Your task to perform on an android device: turn on notifications settings in the gmail app Image 0: 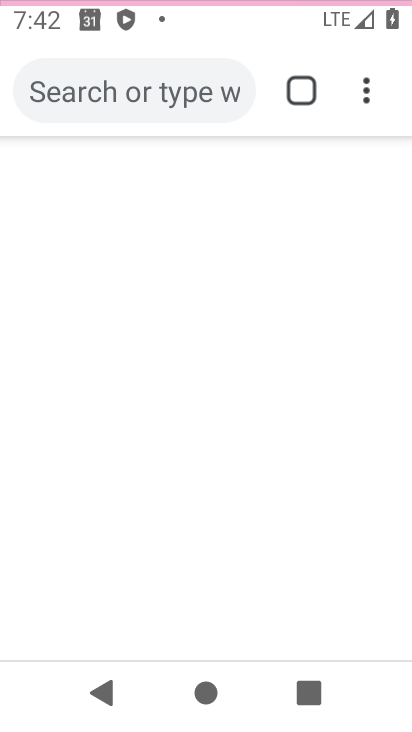
Step 0: click (234, 150)
Your task to perform on an android device: turn on notifications settings in the gmail app Image 1: 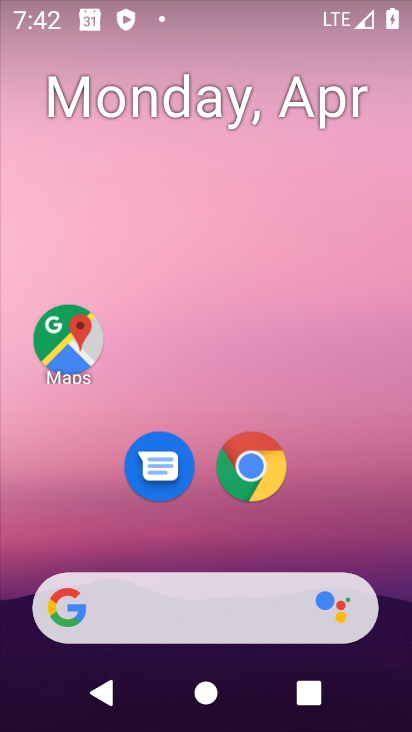
Step 1: drag from (205, 520) to (227, 215)
Your task to perform on an android device: turn on notifications settings in the gmail app Image 2: 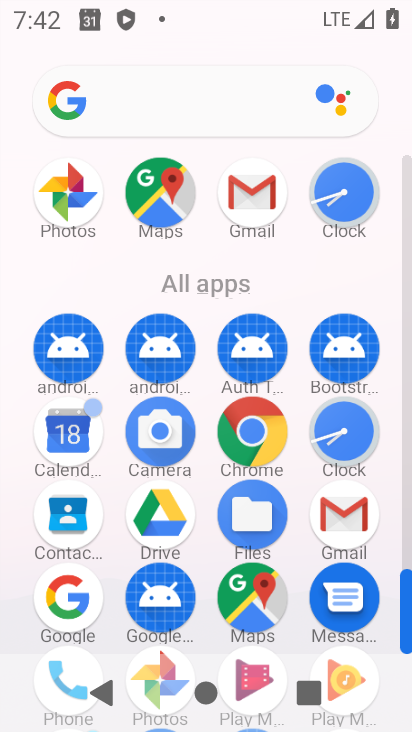
Step 2: drag from (212, 651) to (271, 280)
Your task to perform on an android device: turn on notifications settings in the gmail app Image 3: 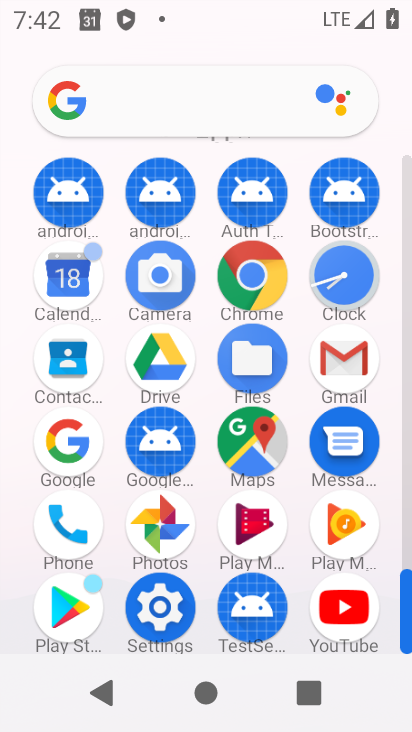
Step 3: click (349, 357)
Your task to perform on an android device: turn on notifications settings in the gmail app Image 4: 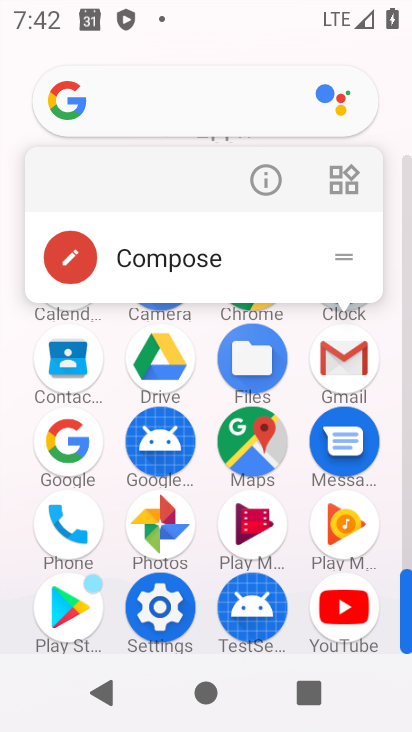
Step 4: click (261, 174)
Your task to perform on an android device: turn on notifications settings in the gmail app Image 5: 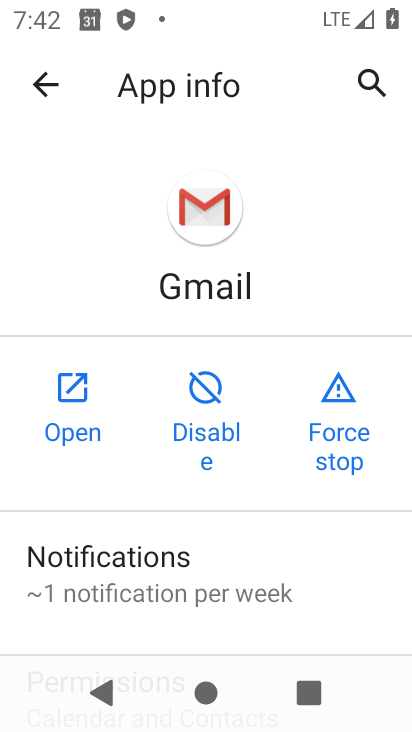
Step 5: click (61, 392)
Your task to perform on an android device: turn on notifications settings in the gmail app Image 6: 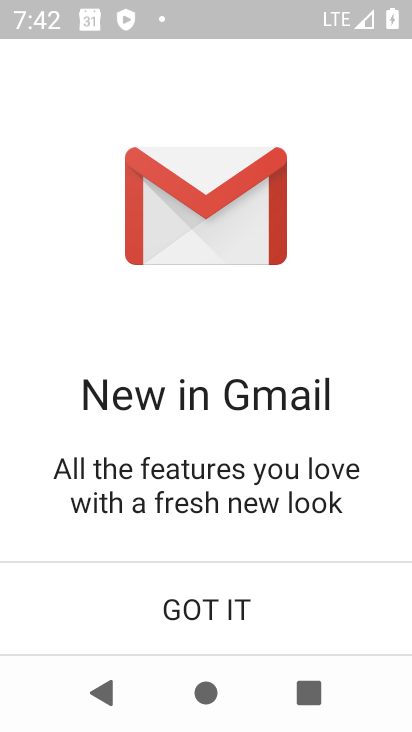
Step 6: click (244, 606)
Your task to perform on an android device: turn on notifications settings in the gmail app Image 7: 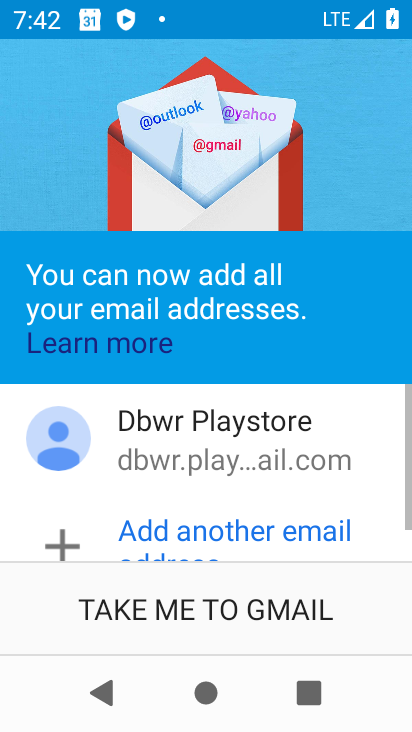
Step 7: click (187, 601)
Your task to perform on an android device: turn on notifications settings in the gmail app Image 8: 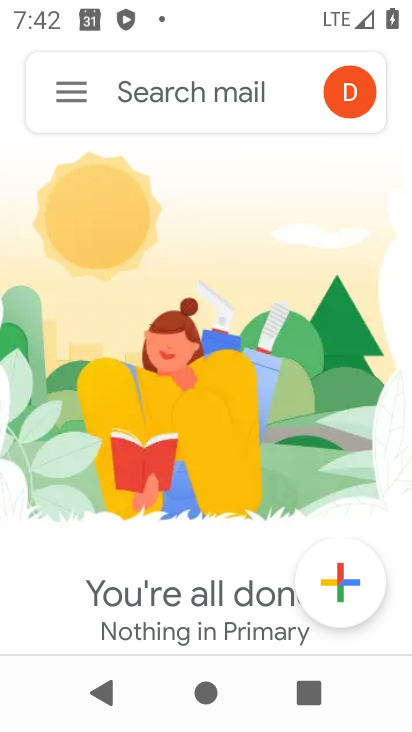
Step 8: click (75, 76)
Your task to perform on an android device: turn on notifications settings in the gmail app Image 9: 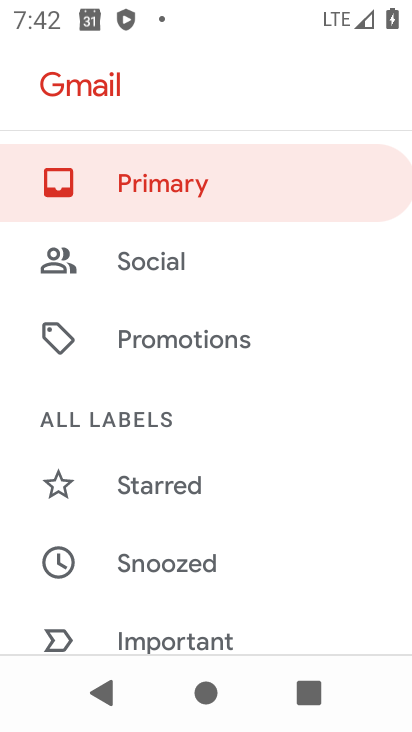
Step 9: drag from (184, 477) to (260, 60)
Your task to perform on an android device: turn on notifications settings in the gmail app Image 10: 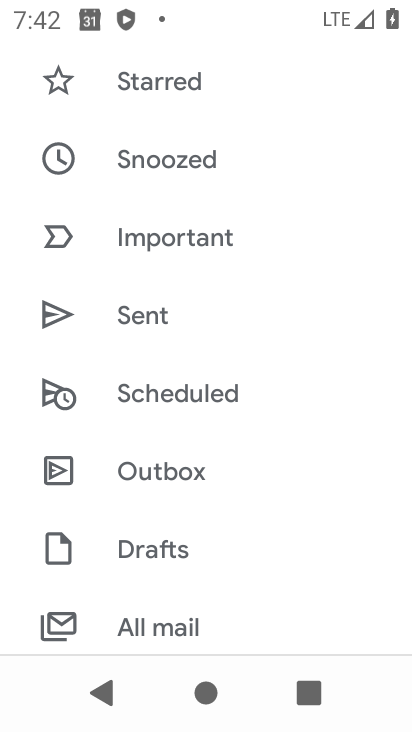
Step 10: drag from (238, 519) to (292, 100)
Your task to perform on an android device: turn on notifications settings in the gmail app Image 11: 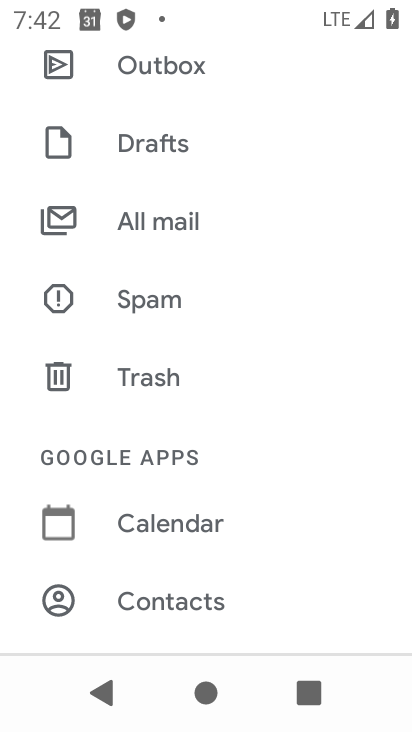
Step 11: drag from (258, 195) to (258, 109)
Your task to perform on an android device: turn on notifications settings in the gmail app Image 12: 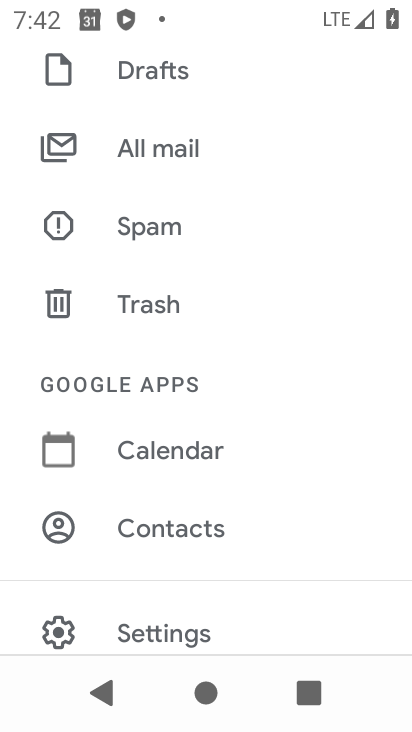
Step 12: click (197, 629)
Your task to perform on an android device: turn on notifications settings in the gmail app Image 13: 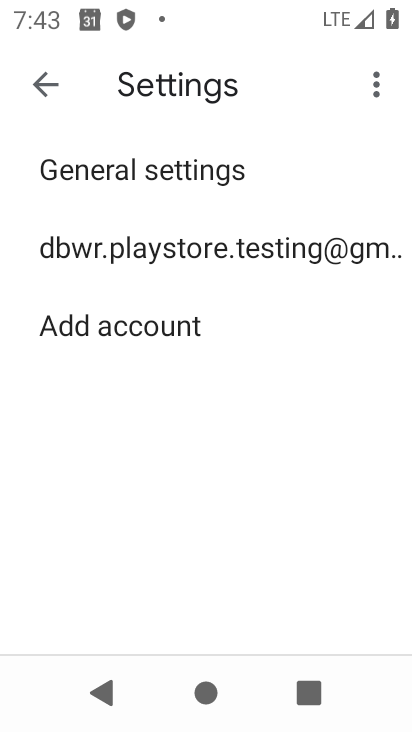
Step 13: click (188, 237)
Your task to perform on an android device: turn on notifications settings in the gmail app Image 14: 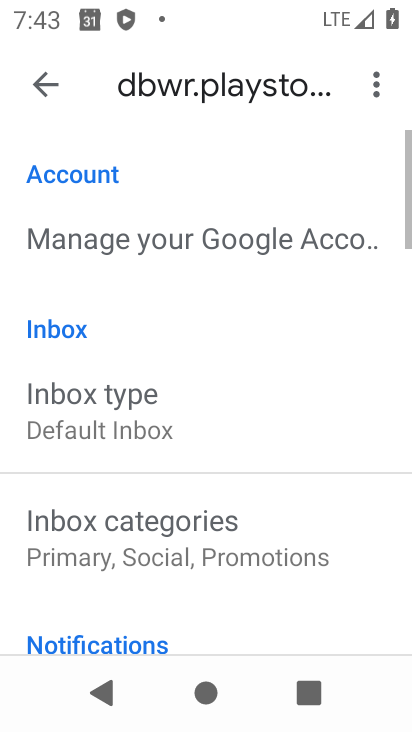
Step 14: drag from (207, 635) to (233, 166)
Your task to perform on an android device: turn on notifications settings in the gmail app Image 15: 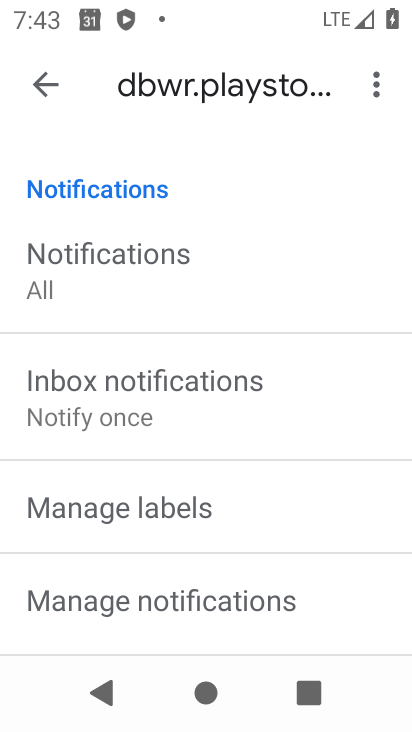
Step 15: drag from (199, 600) to (241, 188)
Your task to perform on an android device: turn on notifications settings in the gmail app Image 16: 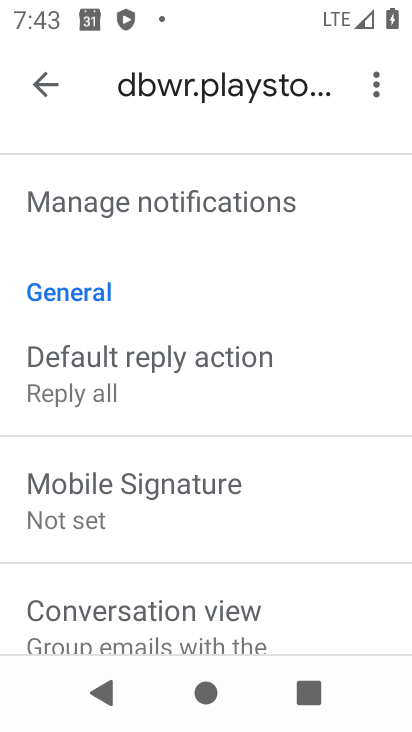
Step 16: click (122, 216)
Your task to perform on an android device: turn on notifications settings in the gmail app Image 17: 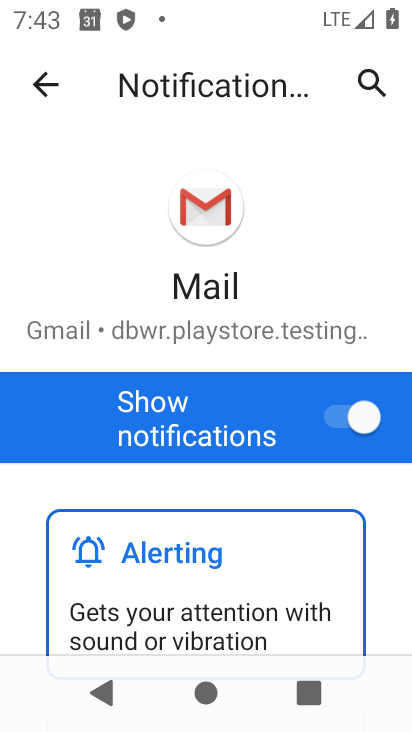
Step 17: task complete